Your task to perform on an android device: turn off translation in the chrome app Image 0: 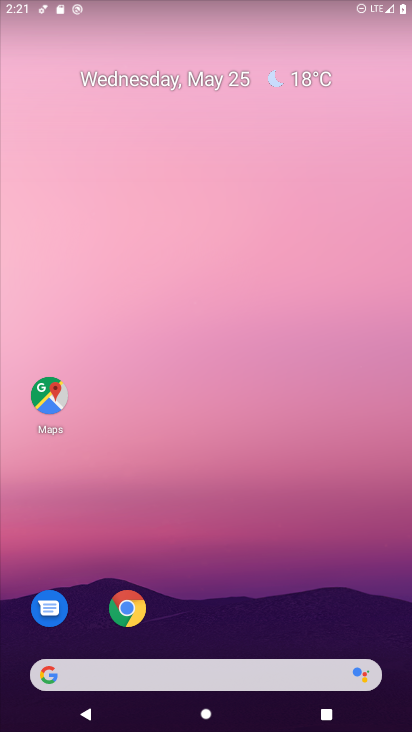
Step 0: click (344, 598)
Your task to perform on an android device: turn off translation in the chrome app Image 1: 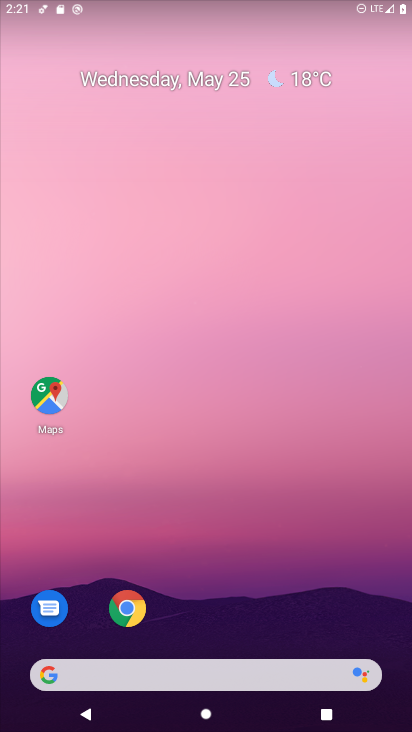
Step 1: click (125, 607)
Your task to perform on an android device: turn off translation in the chrome app Image 2: 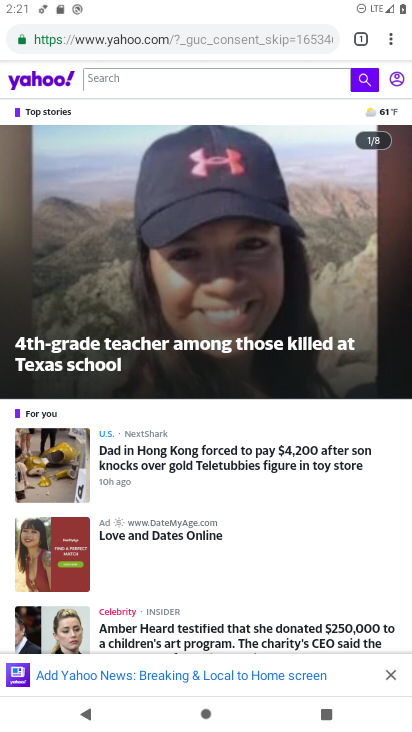
Step 2: click (388, 41)
Your task to perform on an android device: turn off translation in the chrome app Image 3: 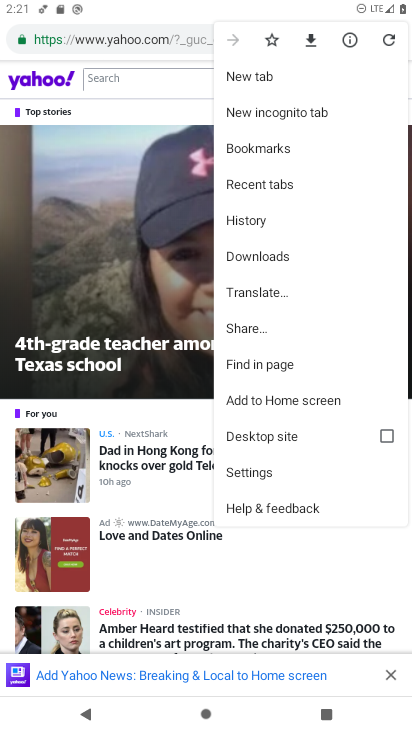
Step 3: click (268, 478)
Your task to perform on an android device: turn off translation in the chrome app Image 4: 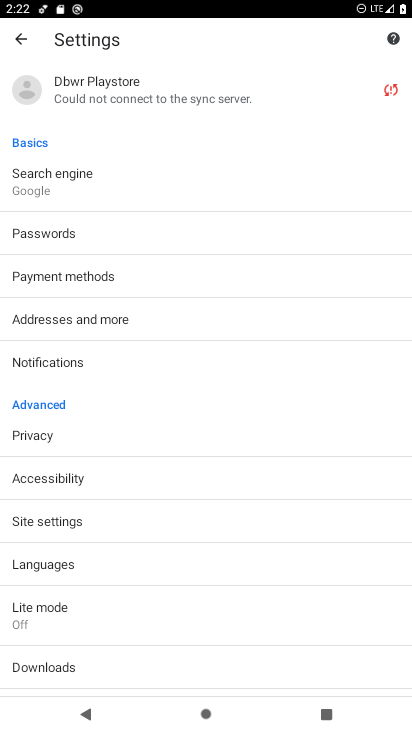
Step 4: click (37, 556)
Your task to perform on an android device: turn off translation in the chrome app Image 5: 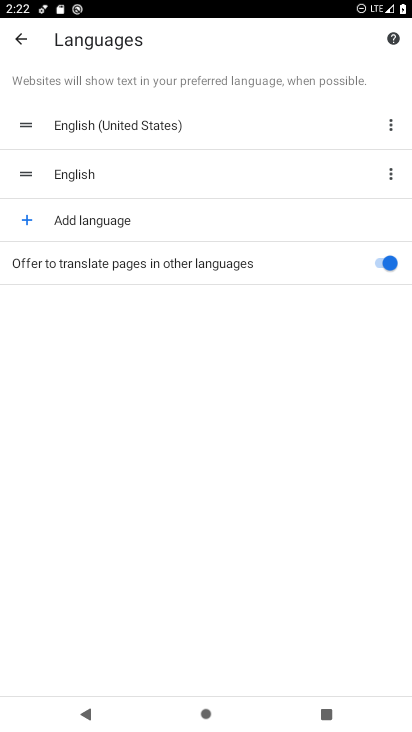
Step 5: click (379, 259)
Your task to perform on an android device: turn off translation in the chrome app Image 6: 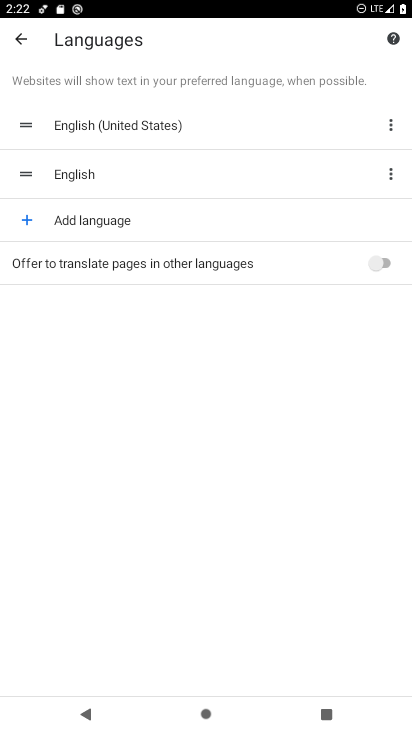
Step 6: task complete